Your task to perform on an android device: Open calendar and show me the third week of next month Image 0: 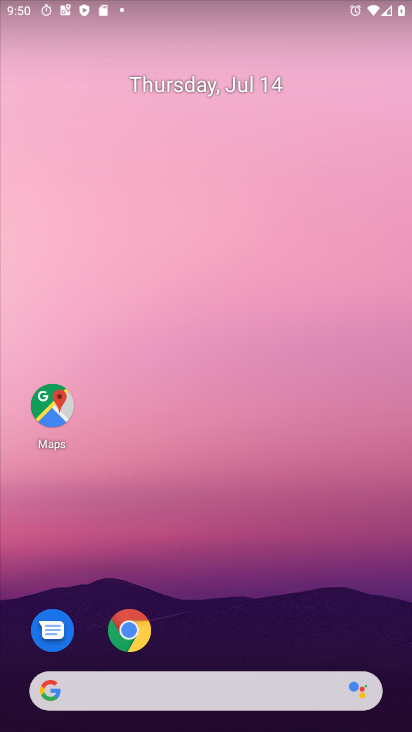
Step 0: drag from (206, 726) to (182, 115)
Your task to perform on an android device: Open calendar and show me the third week of next month Image 1: 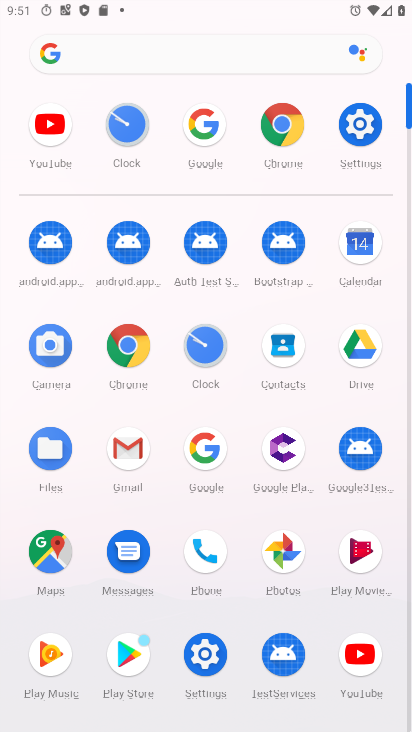
Step 1: click (363, 244)
Your task to perform on an android device: Open calendar and show me the third week of next month Image 2: 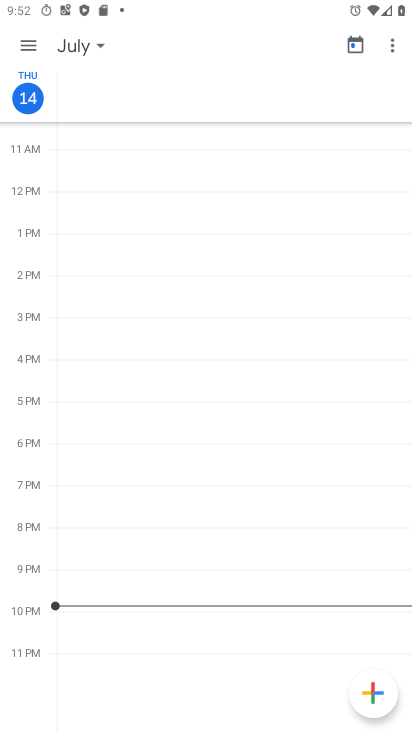
Step 2: click (106, 40)
Your task to perform on an android device: Open calendar and show me the third week of next month Image 3: 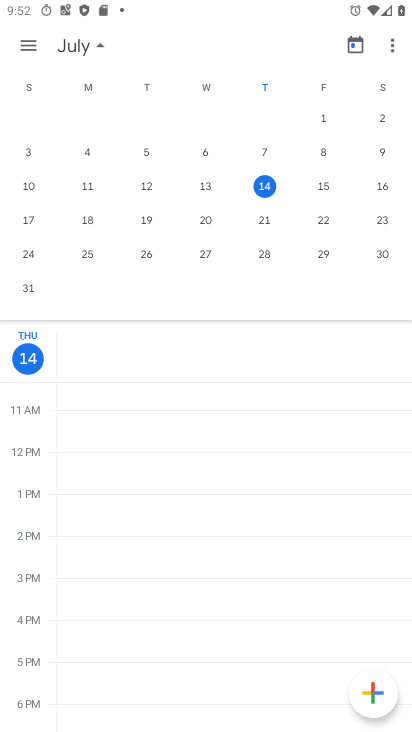
Step 3: drag from (341, 172) to (110, 164)
Your task to perform on an android device: Open calendar and show me the third week of next month Image 4: 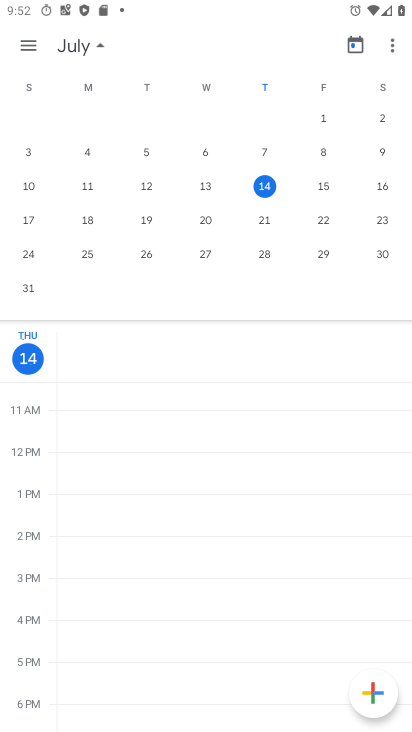
Step 4: drag from (386, 225) to (0, 219)
Your task to perform on an android device: Open calendar and show me the third week of next month Image 5: 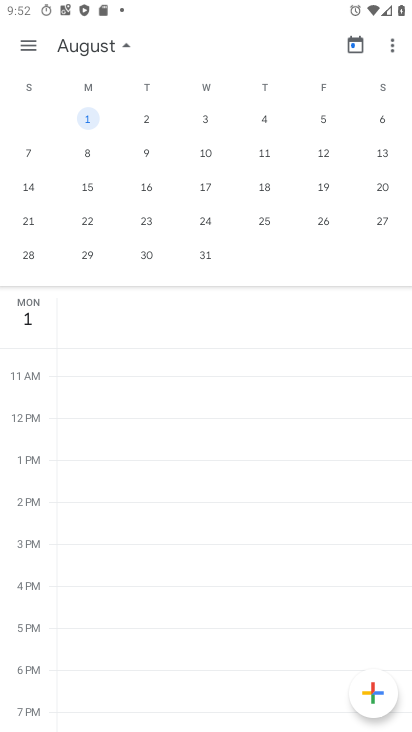
Step 5: click (88, 185)
Your task to perform on an android device: Open calendar and show me the third week of next month Image 6: 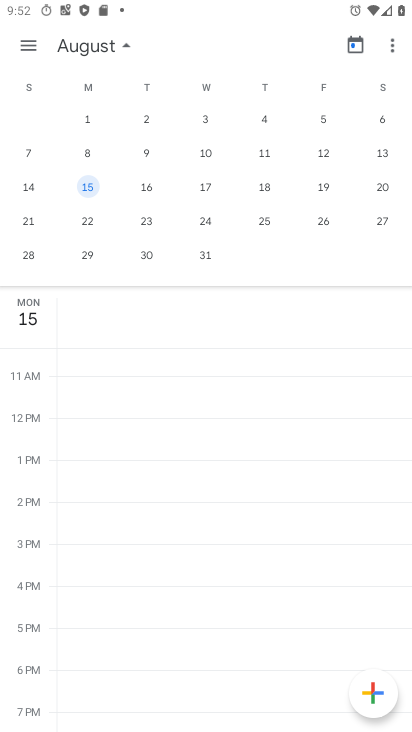
Step 6: click (29, 38)
Your task to perform on an android device: Open calendar and show me the third week of next month Image 7: 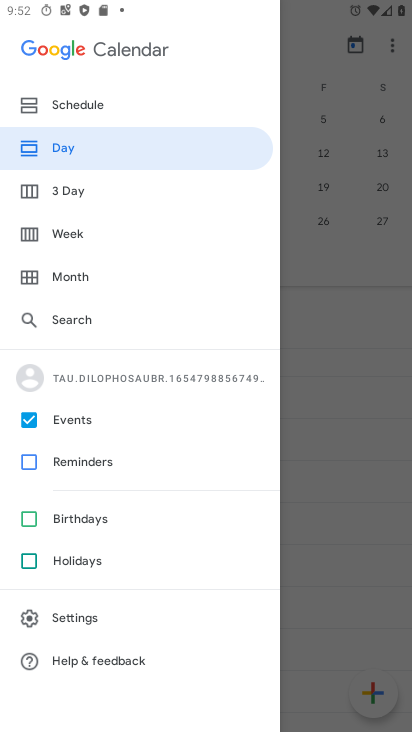
Step 7: click (71, 240)
Your task to perform on an android device: Open calendar and show me the third week of next month Image 8: 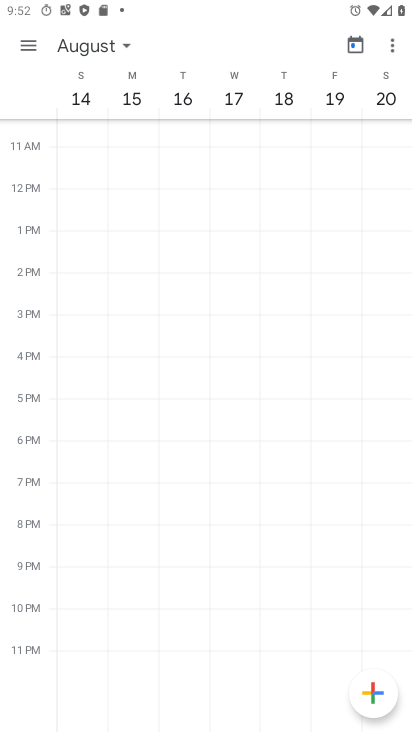
Step 8: task complete